Your task to perform on an android device: clear all cookies in the chrome app Image 0: 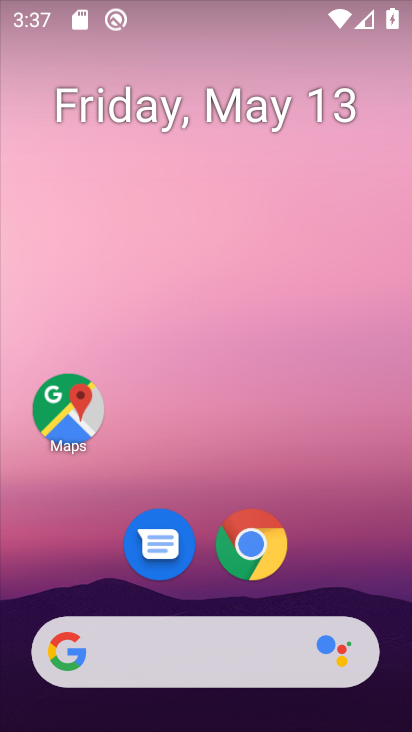
Step 0: click (251, 545)
Your task to perform on an android device: clear all cookies in the chrome app Image 1: 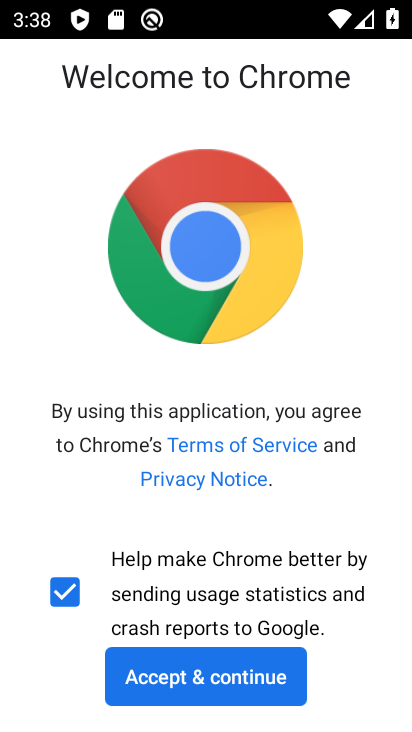
Step 1: click (231, 698)
Your task to perform on an android device: clear all cookies in the chrome app Image 2: 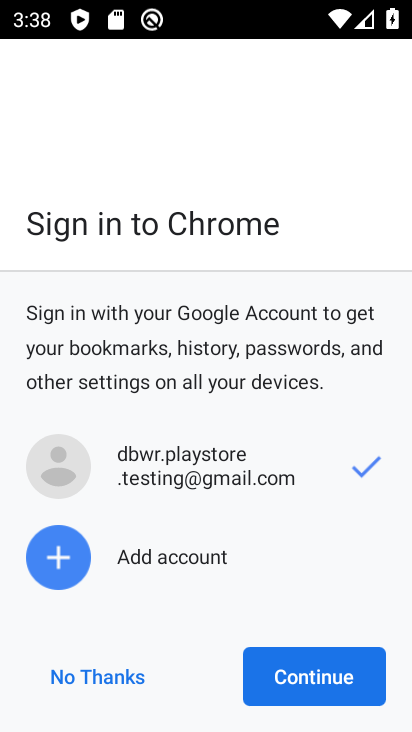
Step 2: click (299, 674)
Your task to perform on an android device: clear all cookies in the chrome app Image 3: 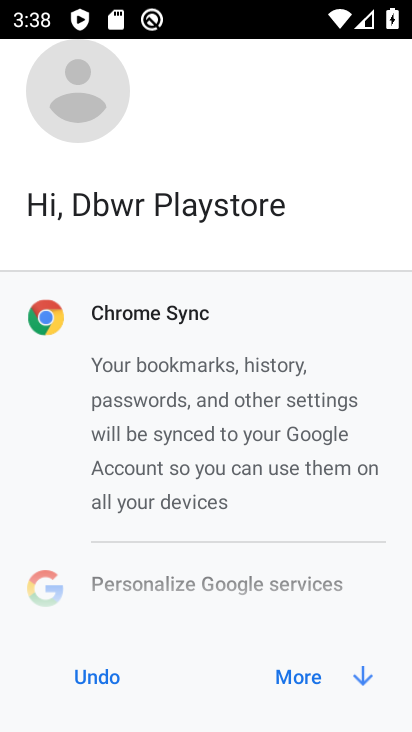
Step 3: click (349, 693)
Your task to perform on an android device: clear all cookies in the chrome app Image 4: 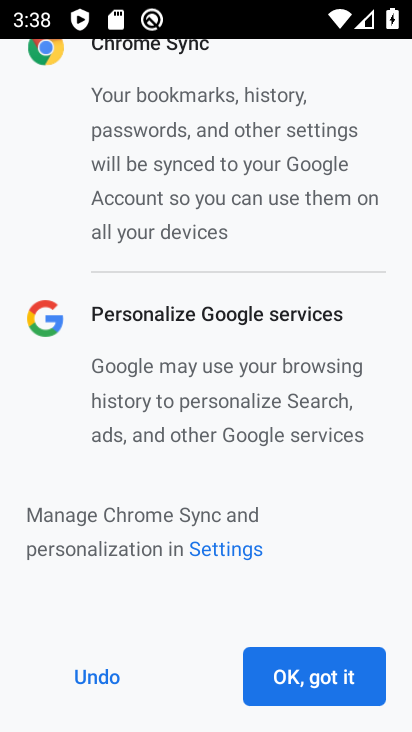
Step 4: click (349, 692)
Your task to perform on an android device: clear all cookies in the chrome app Image 5: 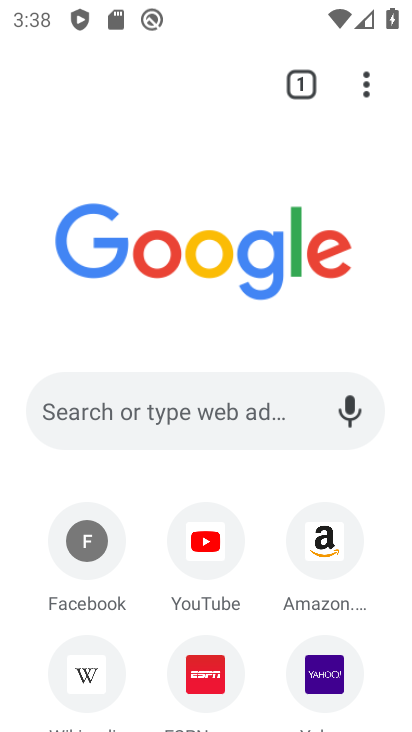
Step 5: drag from (372, 91) to (220, 596)
Your task to perform on an android device: clear all cookies in the chrome app Image 6: 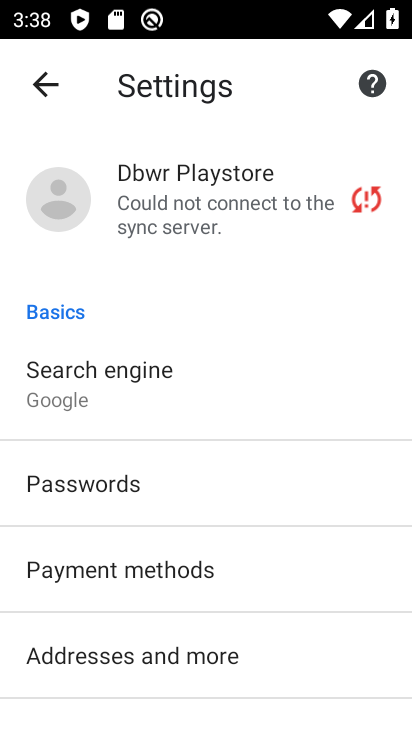
Step 6: drag from (259, 609) to (288, 282)
Your task to perform on an android device: clear all cookies in the chrome app Image 7: 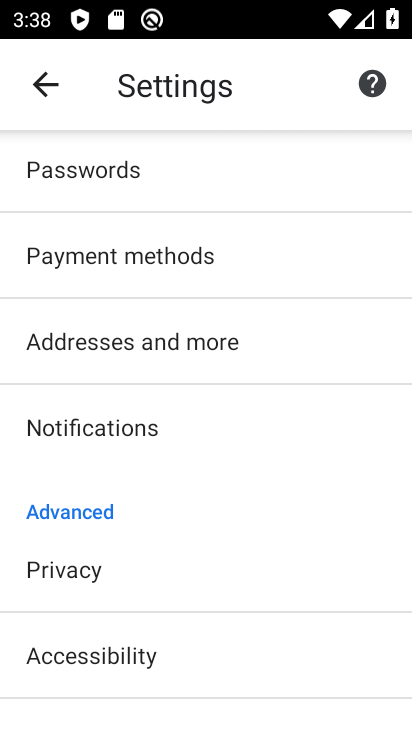
Step 7: press home button
Your task to perform on an android device: clear all cookies in the chrome app Image 8: 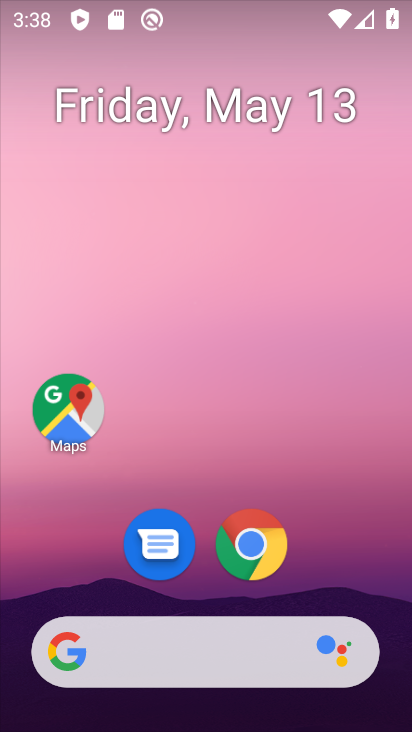
Step 8: click (255, 546)
Your task to perform on an android device: clear all cookies in the chrome app Image 9: 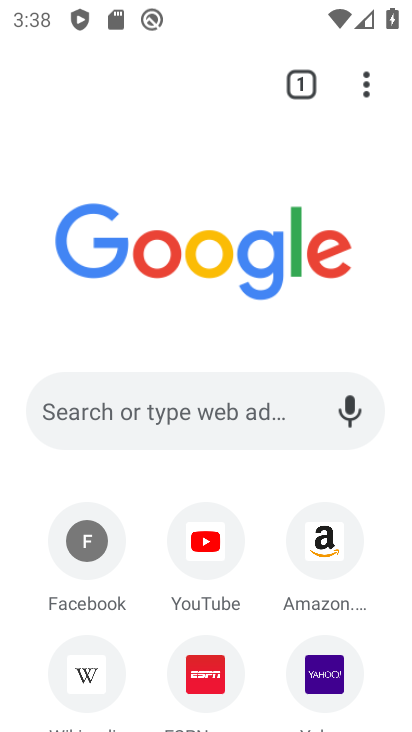
Step 9: task complete